Your task to perform on an android device: turn on location history Image 0: 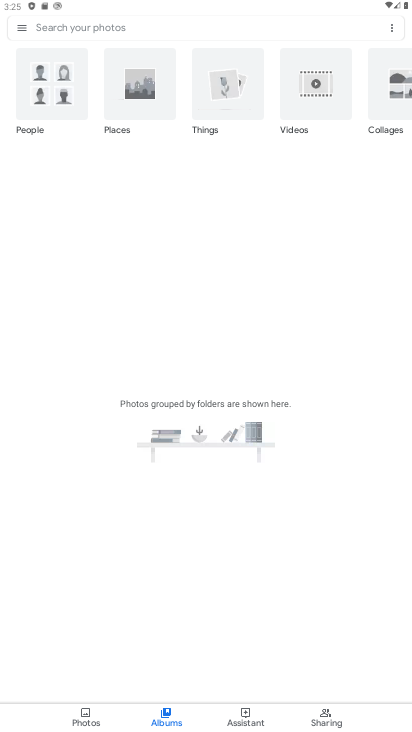
Step 0: press home button
Your task to perform on an android device: turn on location history Image 1: 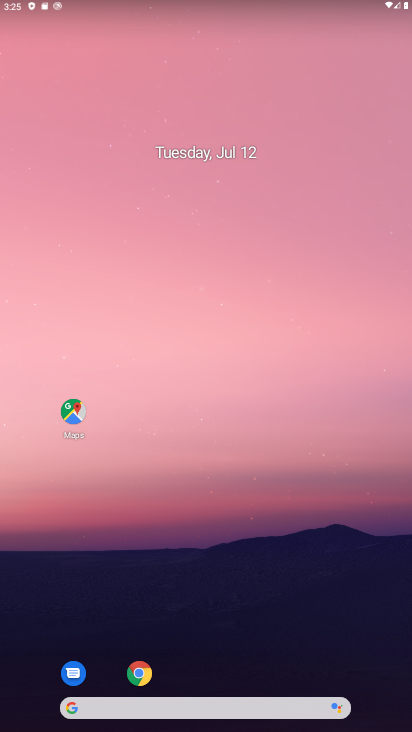
Step 1: drag from (193, 700) to (262, 223)
Your task to perform on an android device: turn on location history Image 2: 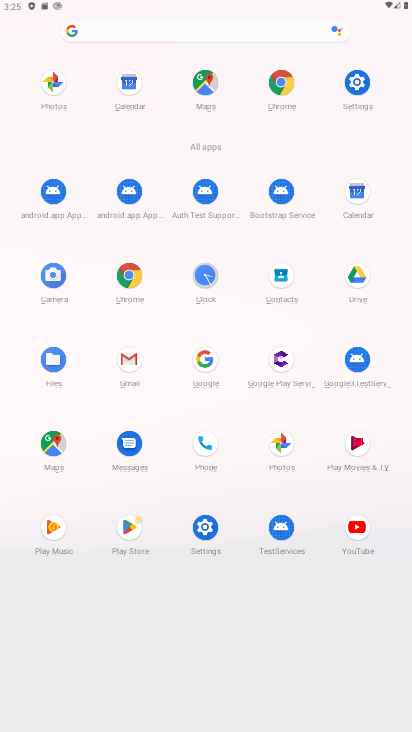
Step 2: click (356, 82)
Your task to perform on an android device: turn on location history Image 3: 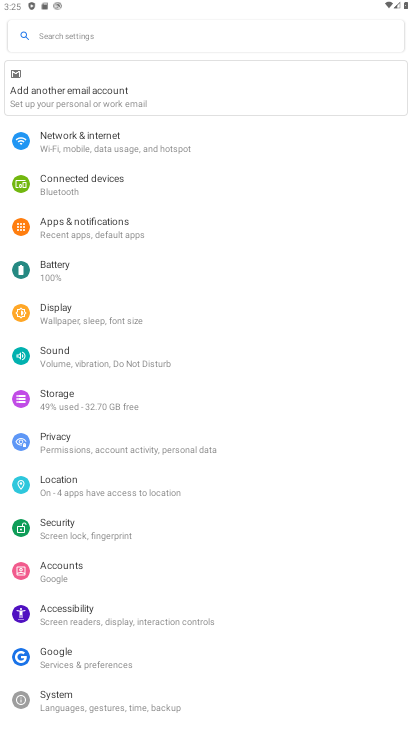
Step 3: click (72, 486)
Your task to perform on an android device: turn on location history Image 4: 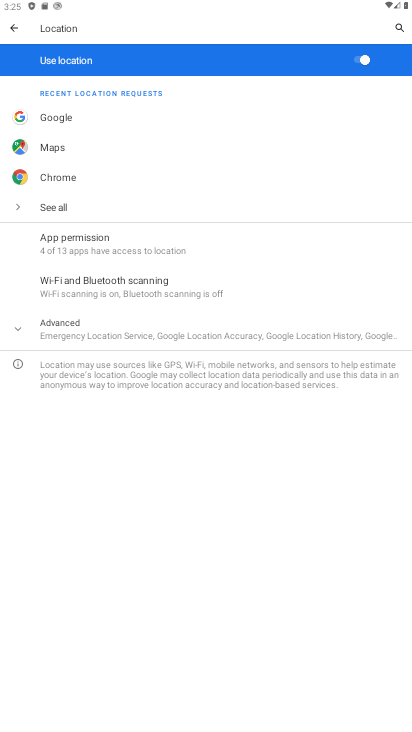
Step 4: click (77, 326)
Your task to perform on an android device: turn on location history Image 5: 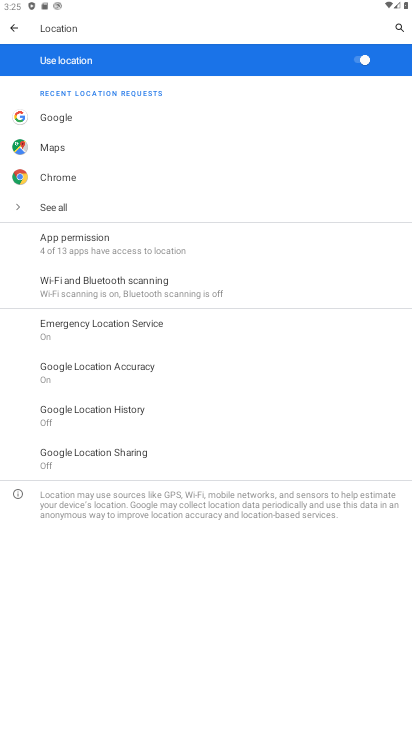
Step 5: click (96, 411)
Your task to perform on an android device: turn on location history Image 6: 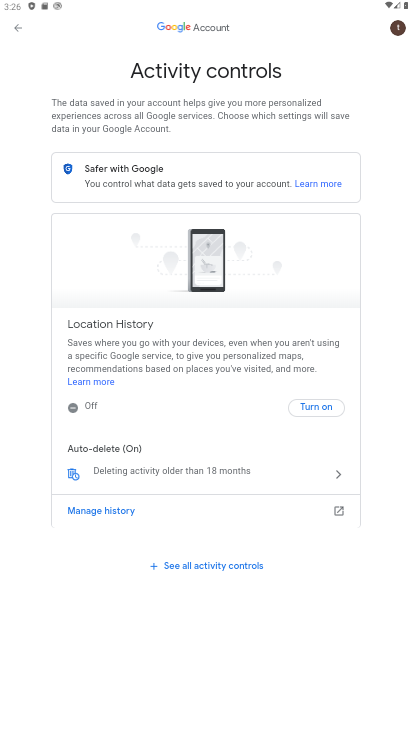
Step 6: click (321, 405)
Your task to perform on an android device: turn on location history Image 7: 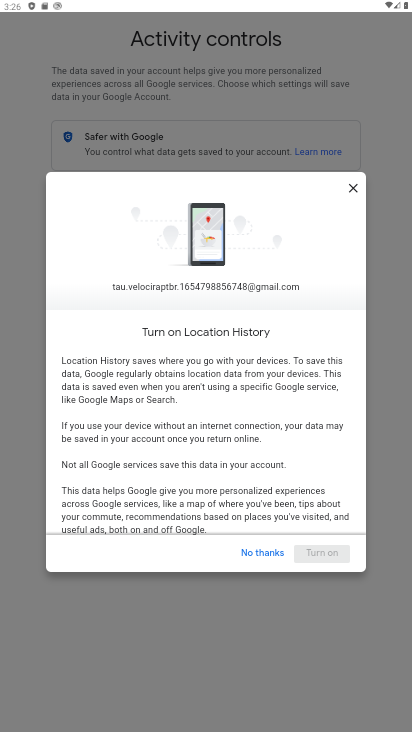
Step 7: drag from (204, 479) to (247, 347)
Your task to perform on an android device: turn on location history Image 8: 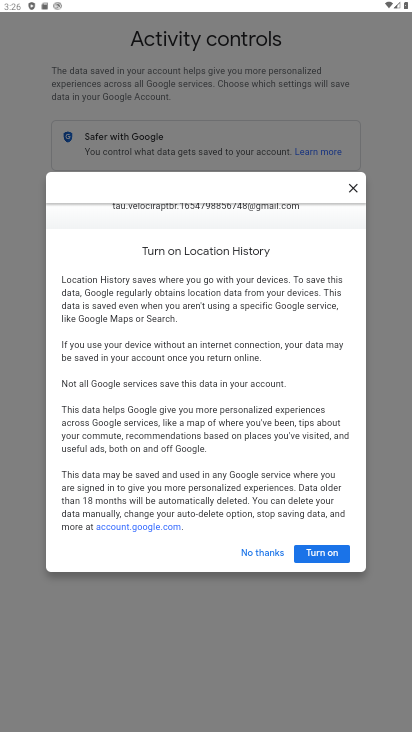
Step 8: click (315, 555)
Your task to perform on an android device: turn on location history Image 9: 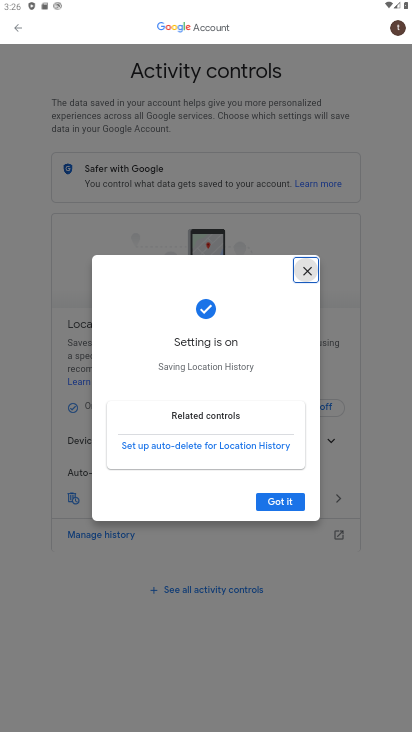
Step 9: click (285, 502)
Your task to perform on an android device: turn on location history Image 10: 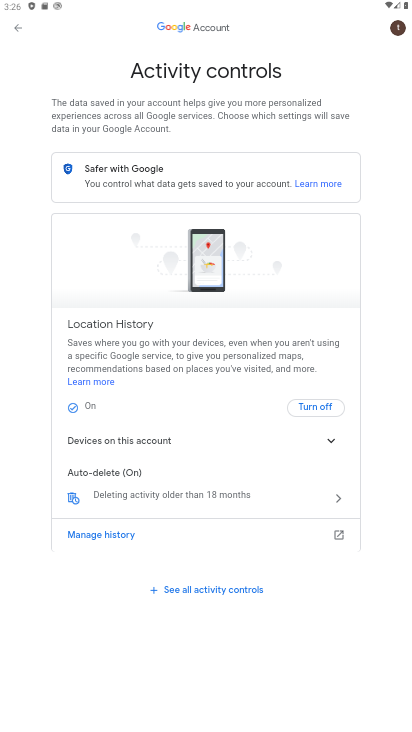
Step 10: task complete